Your task to perform on an android device: all mails in gmail Image 0: 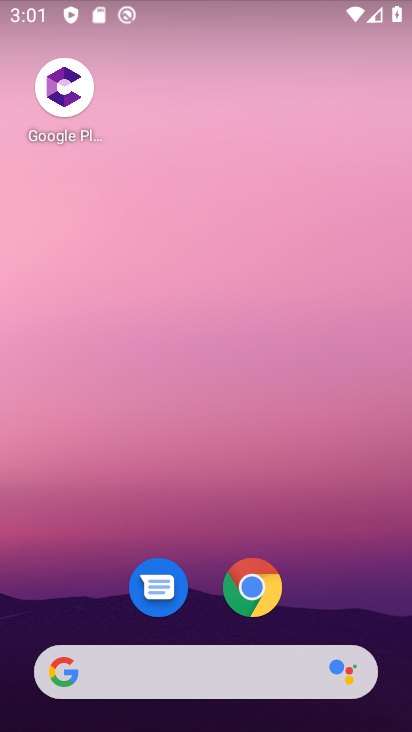
Step 0: drag from (22, 695) to (189, 0)
Your task to perform on an android device: all mails in gmail Image 1: 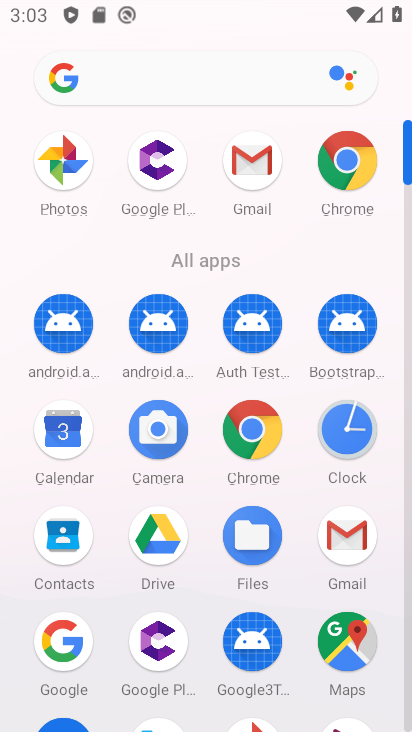
Step 1: click (260, 163)
Your task to perform on an android device: all mails in gmail Image 2: 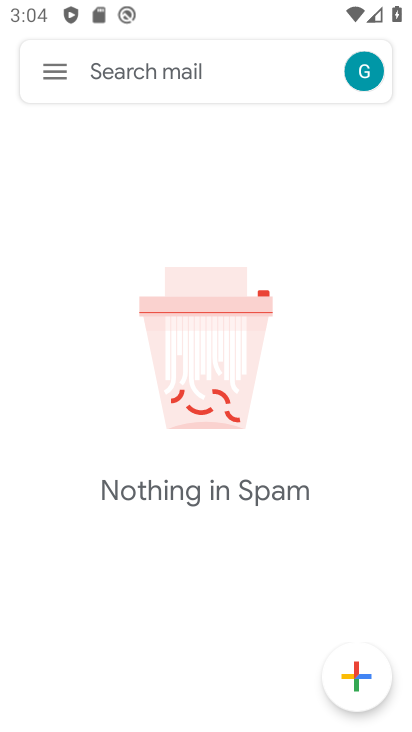
Step 2: click (43, 42)
Your task to perform on an android device: all mails in gmail Image 3: 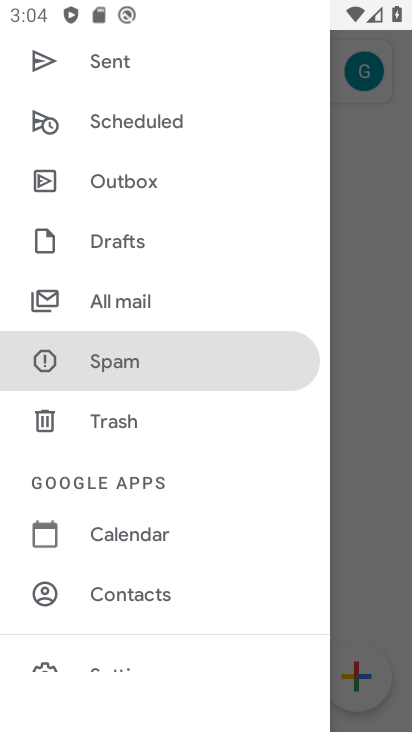
Step 3: click (147, 312)
Your task to perform on an android device: all mails in gmail Image 4: 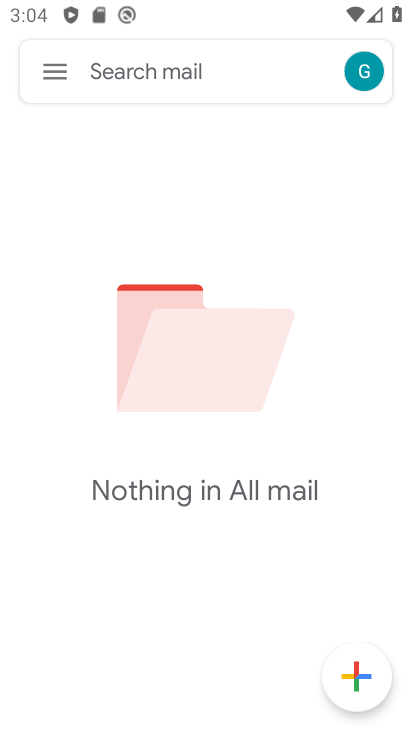
Step 4: task complete